Your task to perform on an android device: open a new tab in the chrome app Image 0: 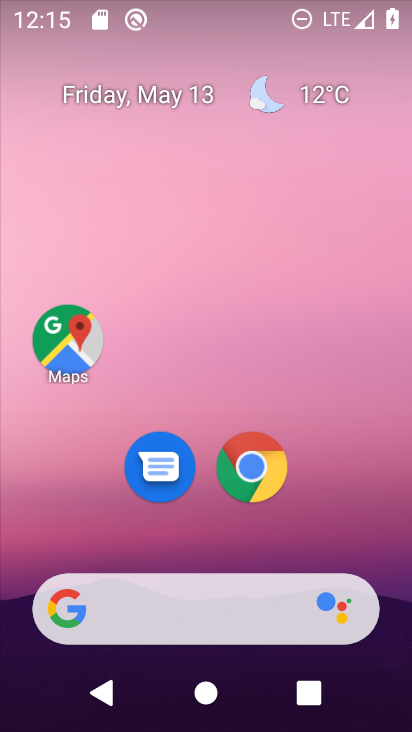
Step 0: drag from (320, 480) to (275, 25)
Your task to perform on an android device: open a new tab in the chrome app Image 1: 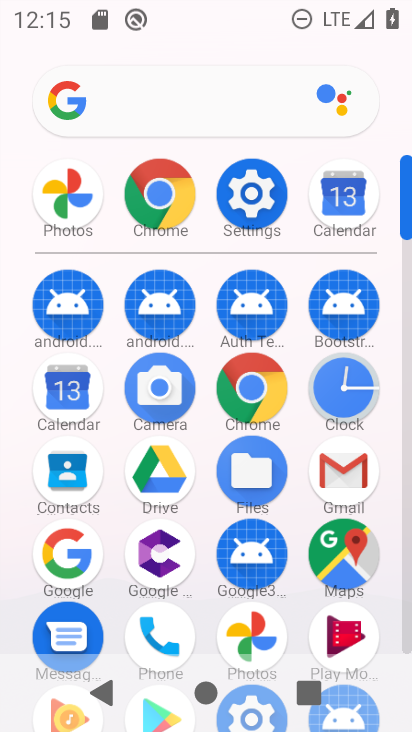
Step 1: click (251, 379)
Your task to perform on an android device: open a new tab in the chrome app Image 2: 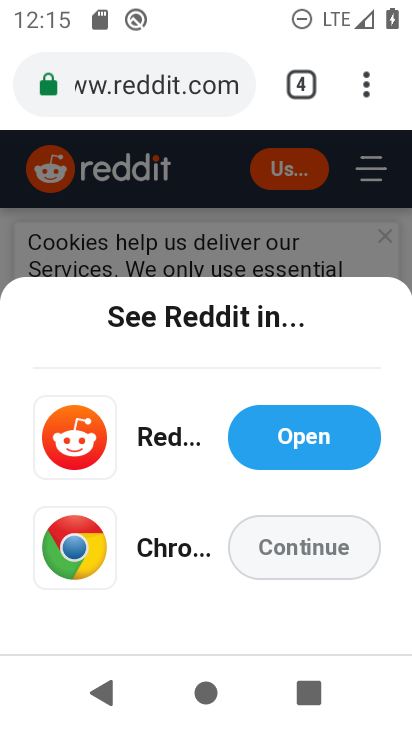
Step 2: task complete